Your task to perform on an android device: Open the calendar app, open the side menu, and click the "Day" option Image 0: 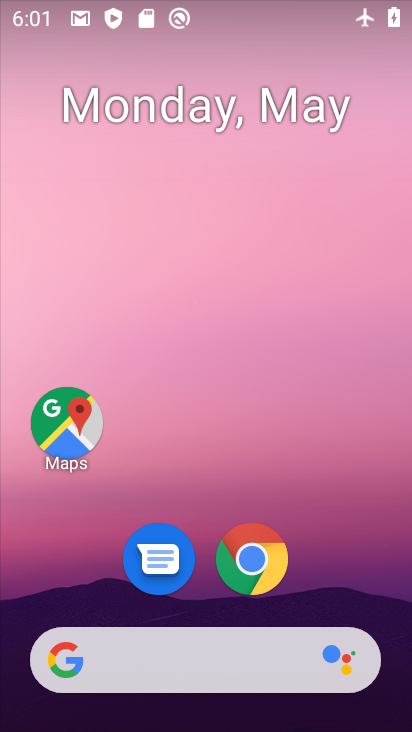
Step 0: drag from (345, 559) to (276, 116)
Your task to perform on an android device: Open the calendar app, open the side menu, and click the "Day" option Image 1: 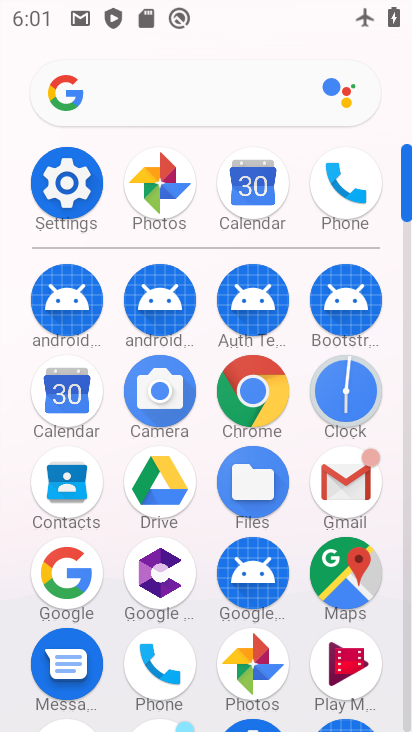
Step 1: click (69, 395)
Your task to perform on an android device: Open the calendar app, open the side menu, and click the "Day" option Image 2: 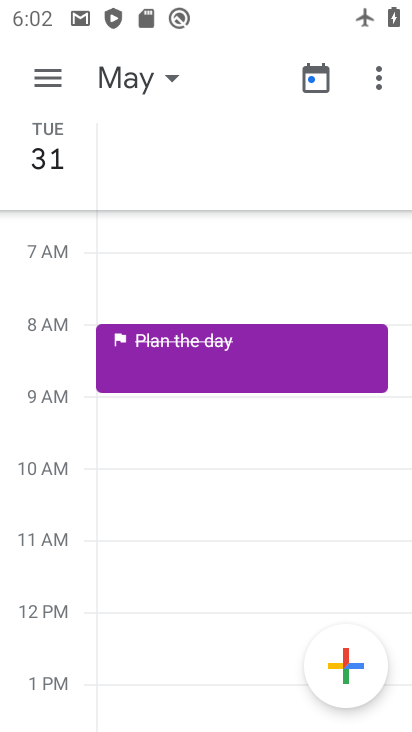
Step 2: click (47, 72)
Your task to perform on an android device: Open the calendar app, open the side menu, and click the "Day" option Image 3: 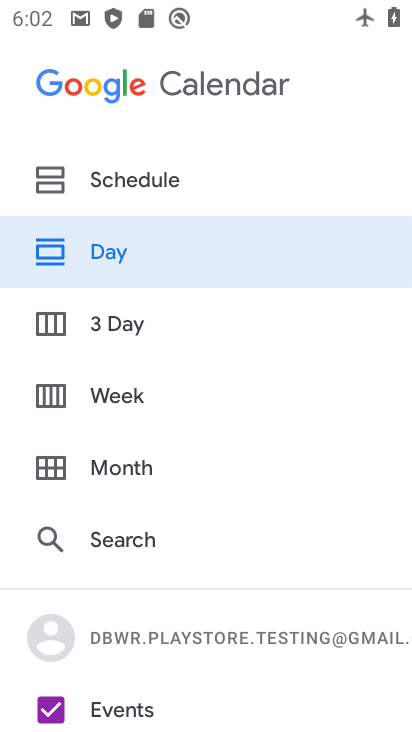
Step 3: click (104, 257)
Your task to perform on an android device: Open the calendar app, open the side menu, and click the "Day" option Image 4: 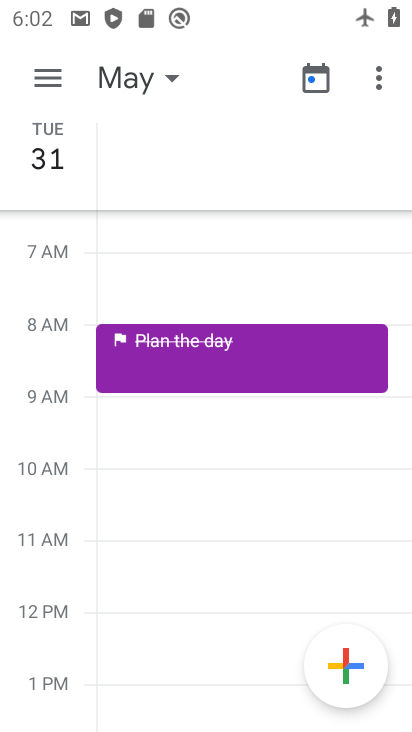
Step 4: task complete